Your task to perform on an android device: open sync settings in chrome Image 0: 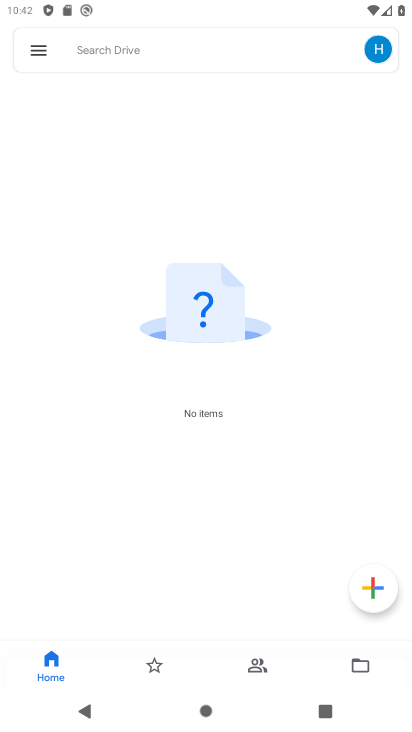
Step 0: press home button
Your task to perform on an android device: open sync settings in chrome Image 1: 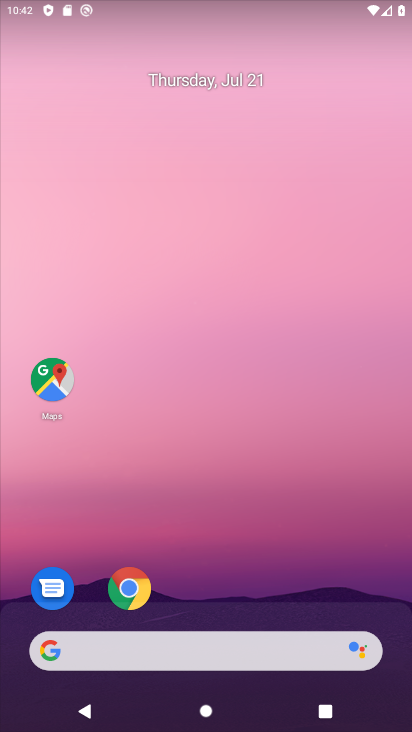
Step 1: drag from (352, 591) to (304, 41)
Your task to perform on an android device: open sync settings in chrome Image 2: 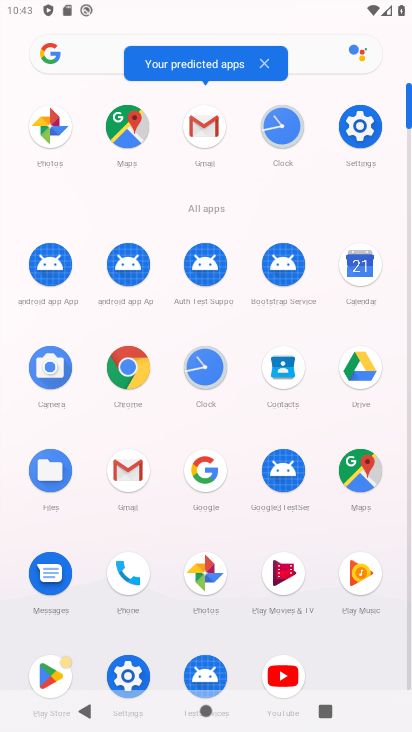
Step 2: click (128, 368)
Your task to perform on an android device: open sync settings in chrome Image 3: 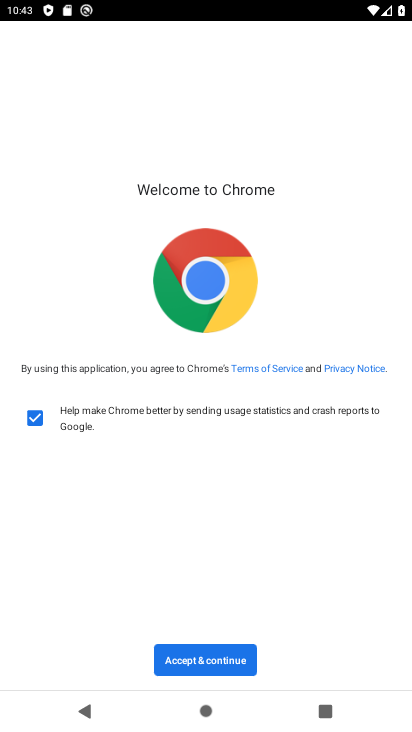
Step 3: click (194, 658)
Your task to perform on an android device: open sync settings in chrome Image 4: 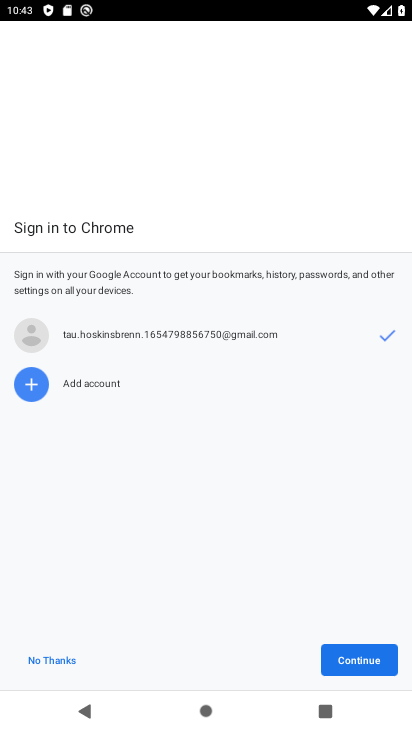
Step 4: click (374, 655)
Your task to perform on an android device: open sync settings in chrome Image 5: 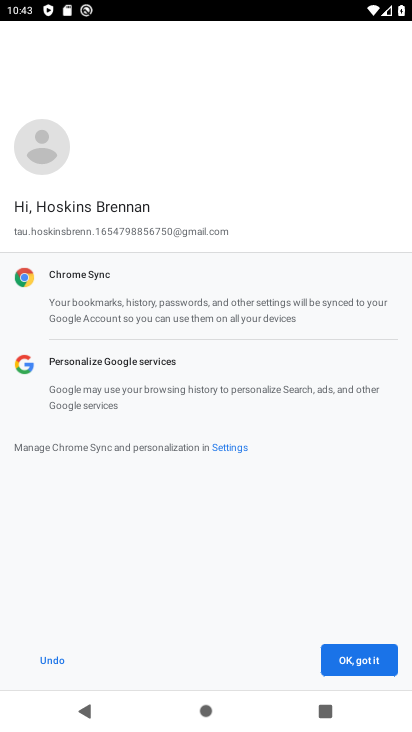
Step 5: click (374, 655)
Your task to perform on an android device: open sync settings in chrome Image 6: 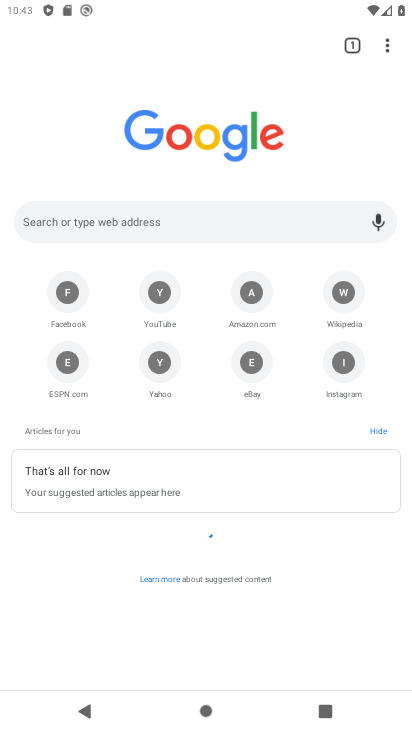
Step 6: click (390, 46)
Your task to perform on an android device: open sync settings in chrome Image 7: 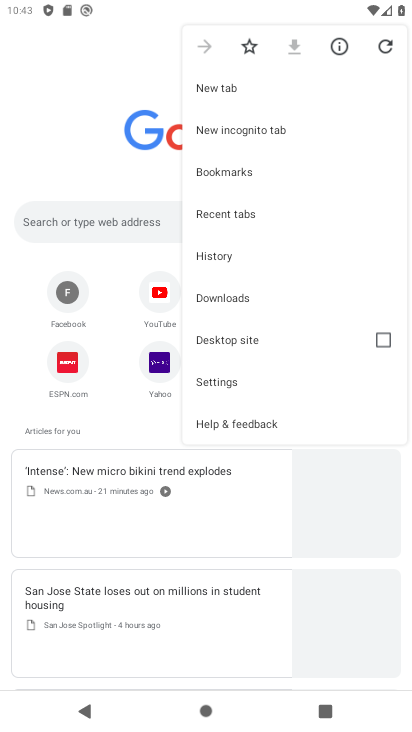
Step 7: click (269, 369)
Your task to perform on an android device: open sync settings in chrome Image 8: 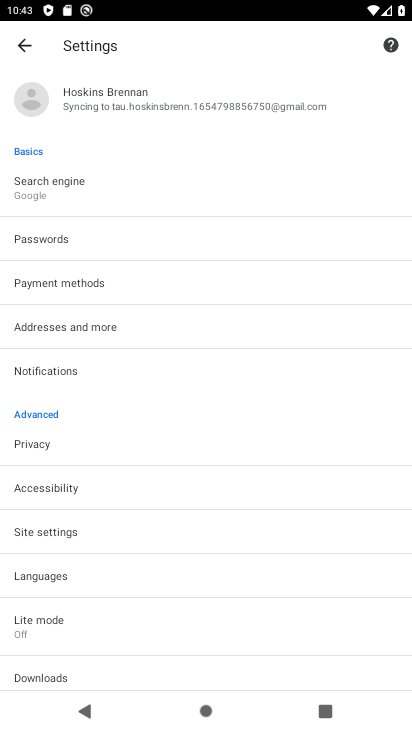
Step 8: click (231, 104)
Your task to perform on an android device: open sync settings in chrome Image 9: 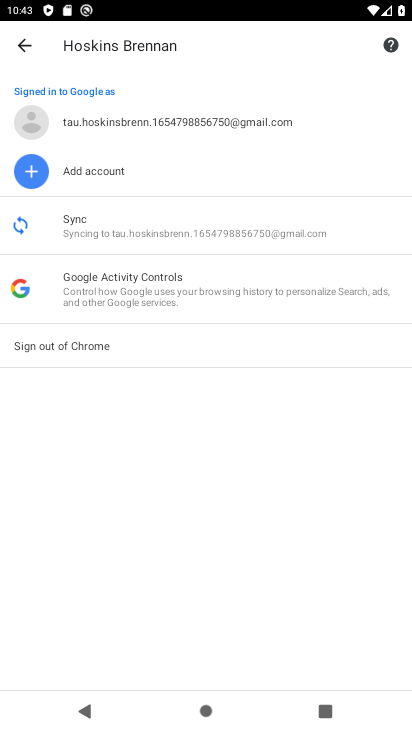
Step 9: click (235, 223)
Your task to perform on an android device: open sync settings in chrome Image 10: 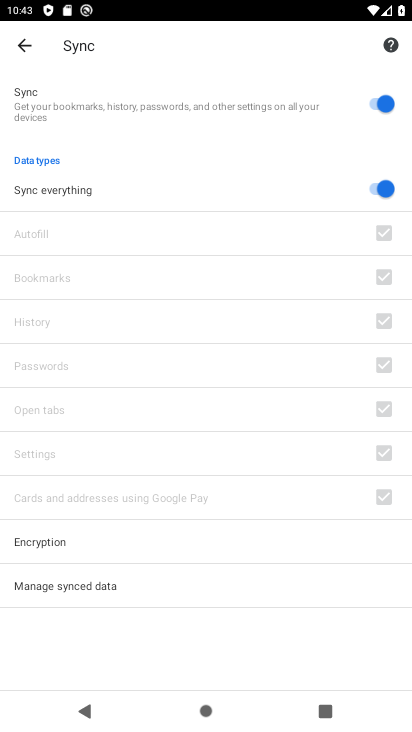
Step 10: task complete